Your task to perform on an android device: open a new tab in the chrome app Image 0: 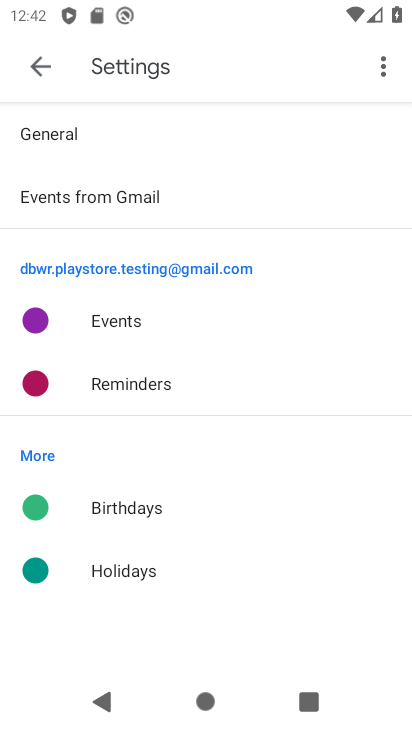
Step 0: press home button
Your task to perform on an android device: open a new tab in the chrome app Image 1: 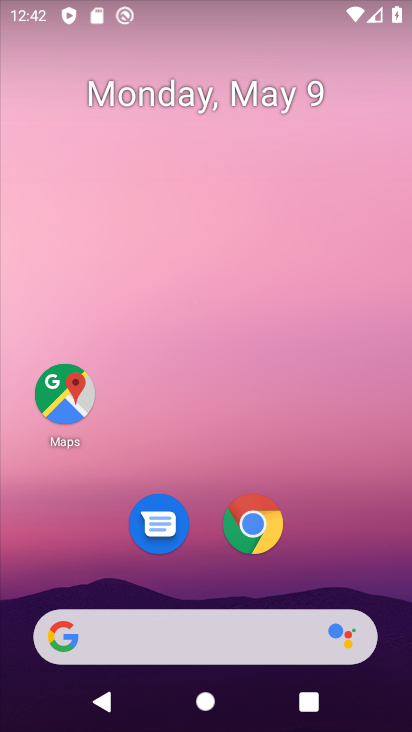
Step 1: click (240, 528)
Your task to perform on an android device: open a new tab in the chrome app Image 2: 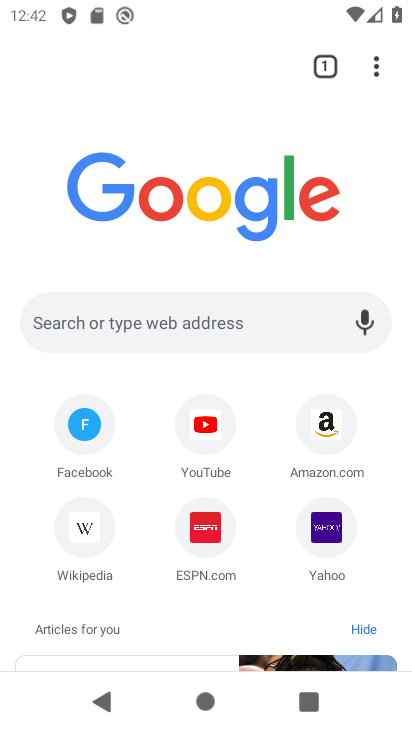
Step 2: click (370, 68)
Your task to perform on an android device: open a new tab in the chrome app Image 3: 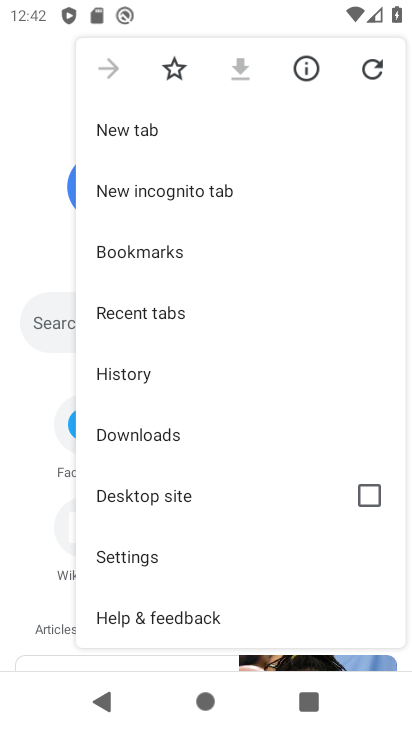
Step 3: click (239, 139)
Your task to perform on an android device: open a new tab in the chrome app Image 4: 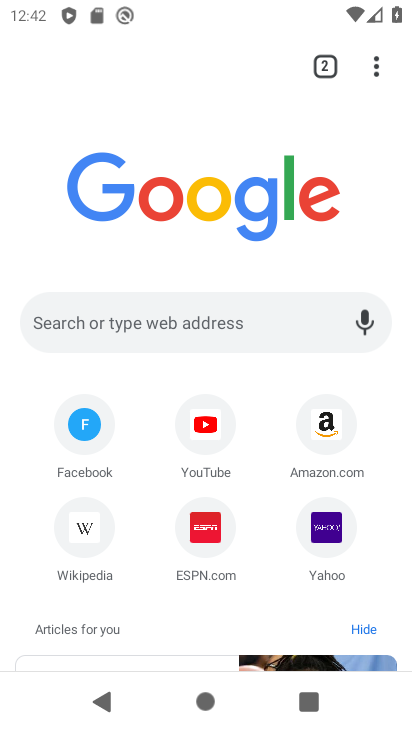
Step 4: task complete